Your task to perform on an android device: toggle pop-ups in chrome Image 0: 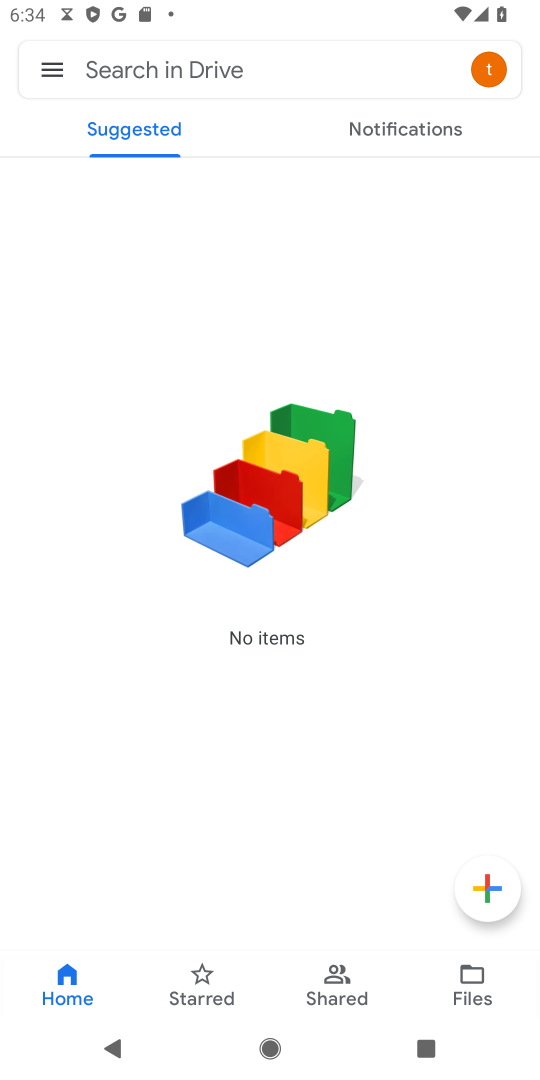
Step 0: press home button
Your task to perform on an android device: toggle pop-ups in chrome Image 1: 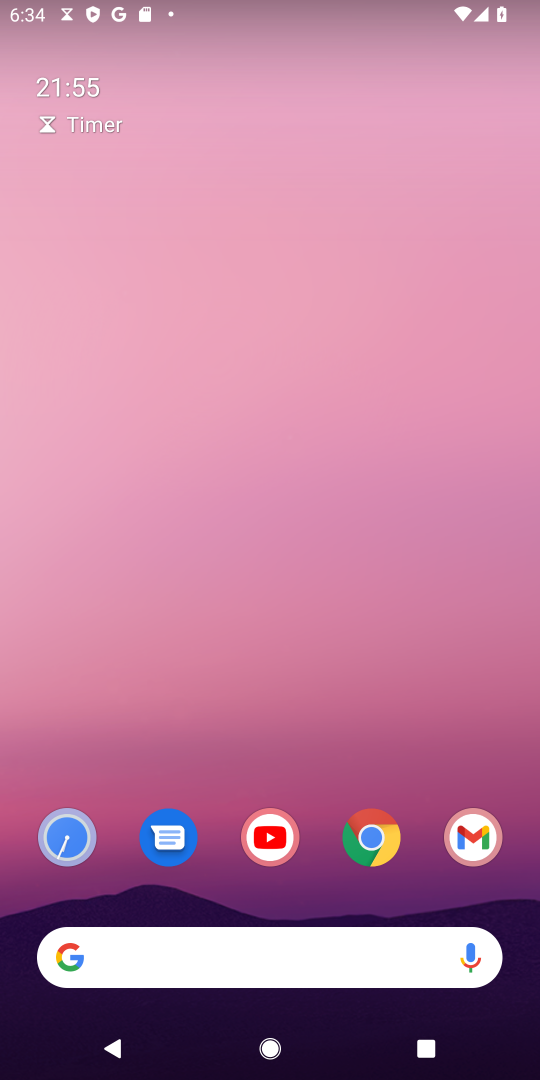
Step 1: click (365, 818)
Your task to perform on an android device: toggle pop-ups in chrome Image 2: 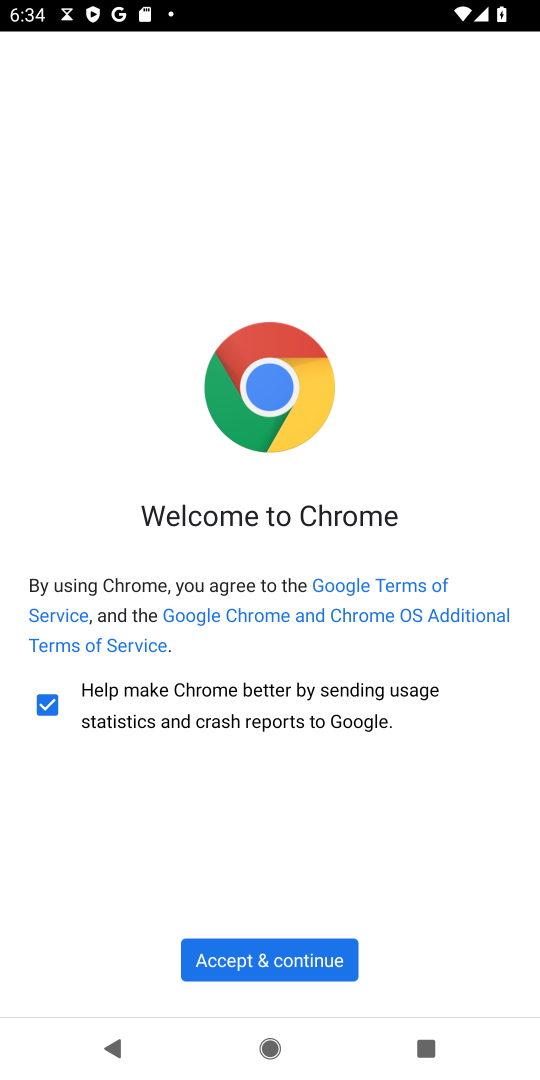
Step 2: click (260, 951)
Your task to perform on an android device: toggle pop-ups in chrome Image 3: 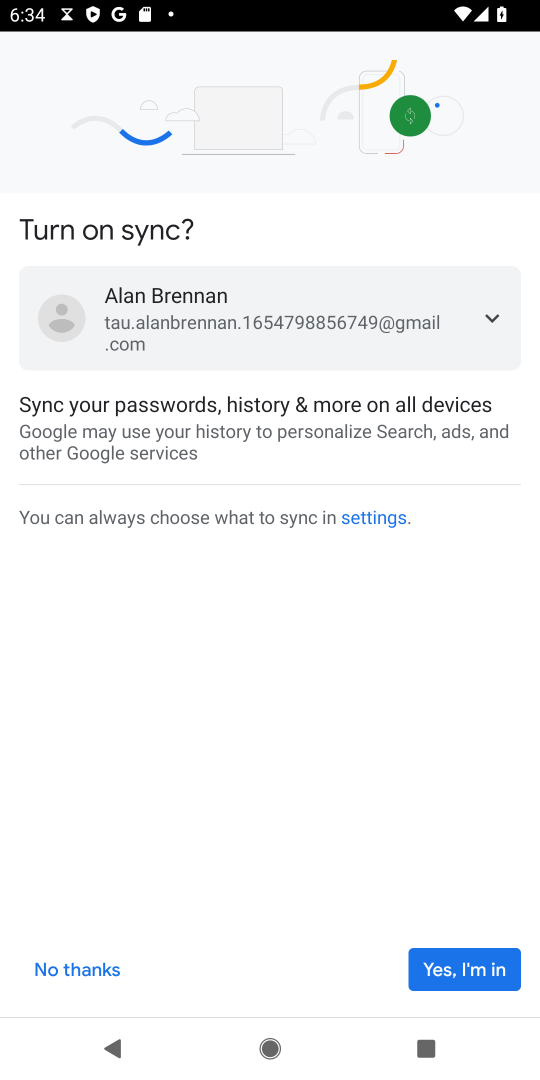
Step 3: click (467, 959)
Your task to perform on an android device: toggle pop-ups in chrome Image 4: 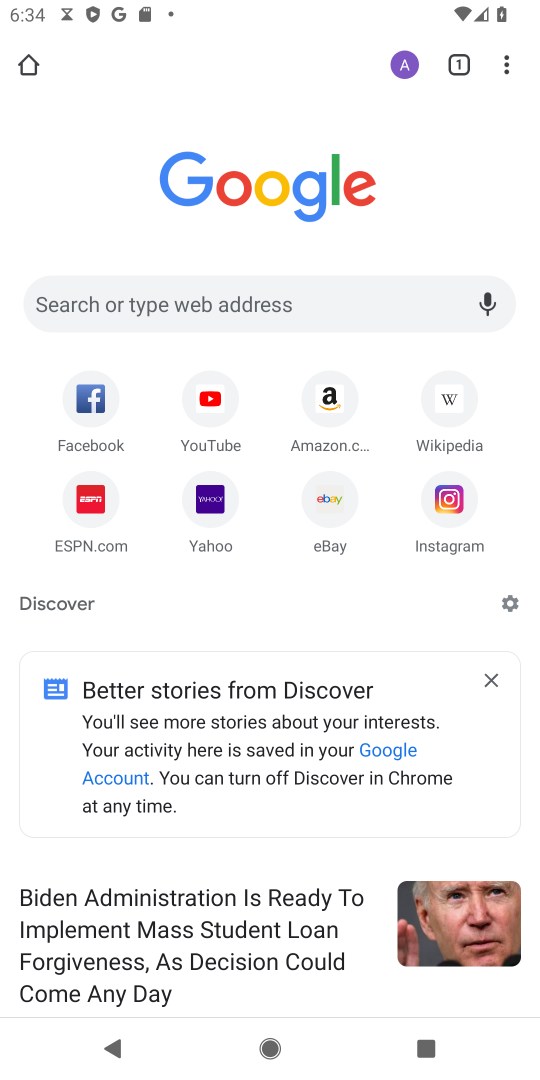
Step 4: click (506, 60)
Your task to perform on an android device: toggle pop-ups in chrome Image 5: 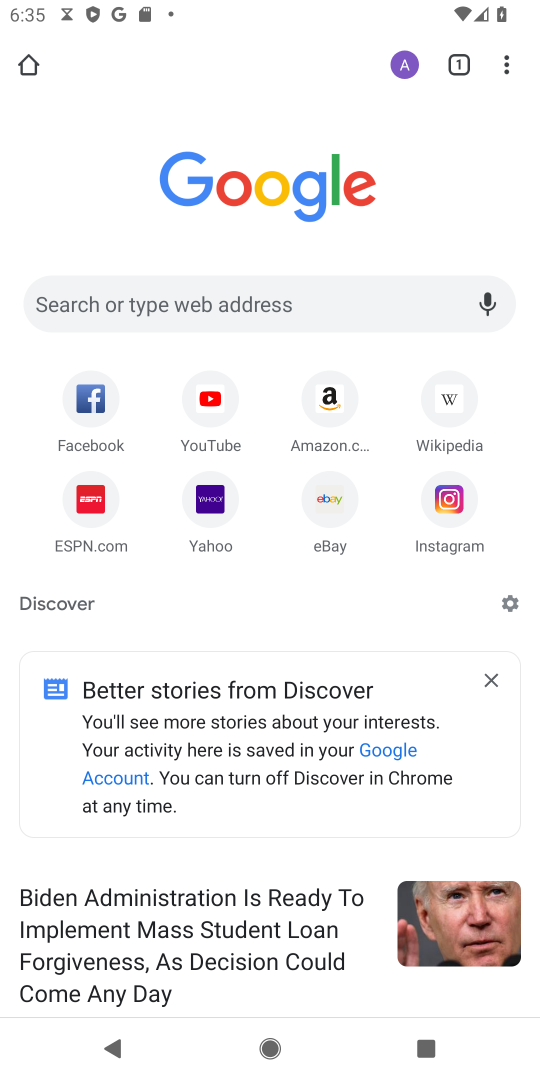
Step 5: click (504, 64)
Your task to perform on an android device: toggle pop-ups in chrome Image 6: 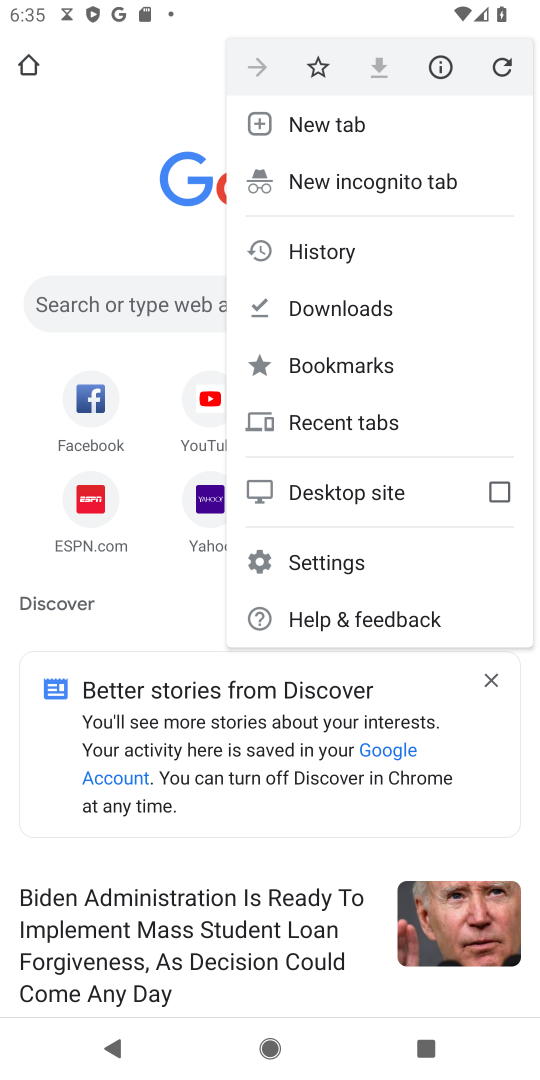
Step 6: click (371, 561)
Your task to perform on an android device: toggle pop-ups in chrome Image 7: 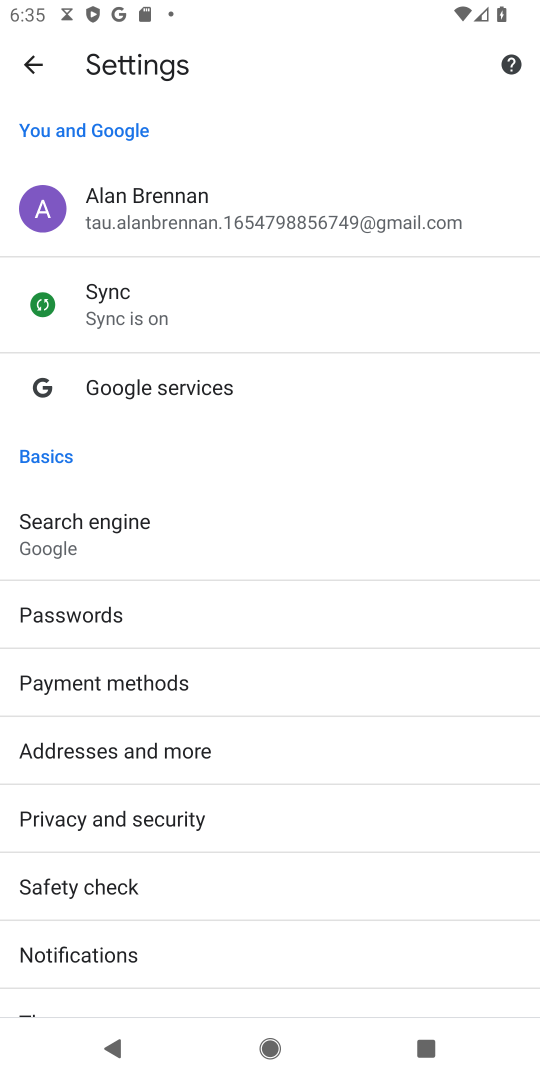
Step 7: drag from (289, 849) to (312, 327)
Your task to perform on an android device: toggle pop-ups in chrome Image 8: 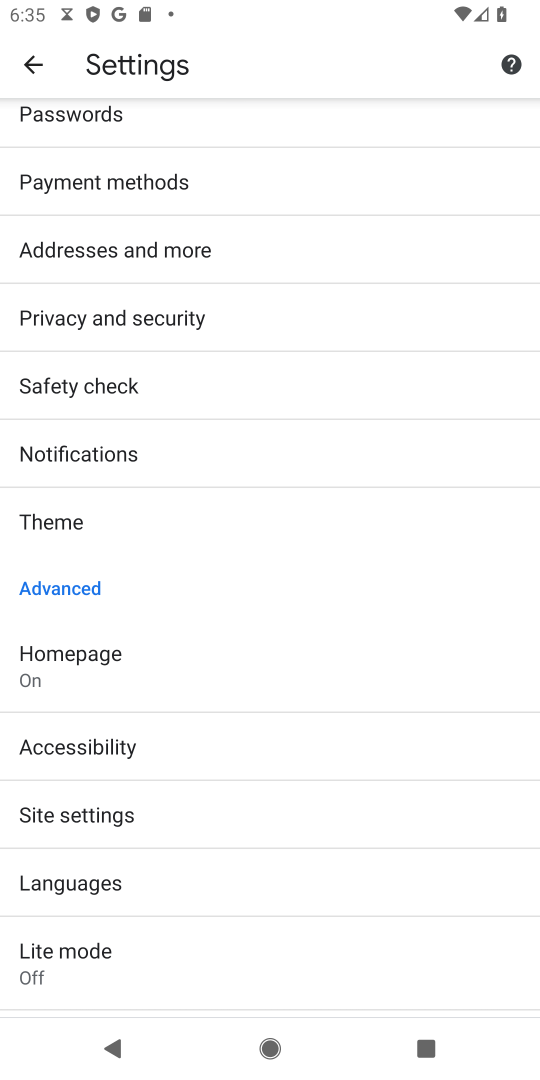
Step 8: click (160, 812)
Your task to perform on an android device: toggle pop-ups in chrome Image 9: 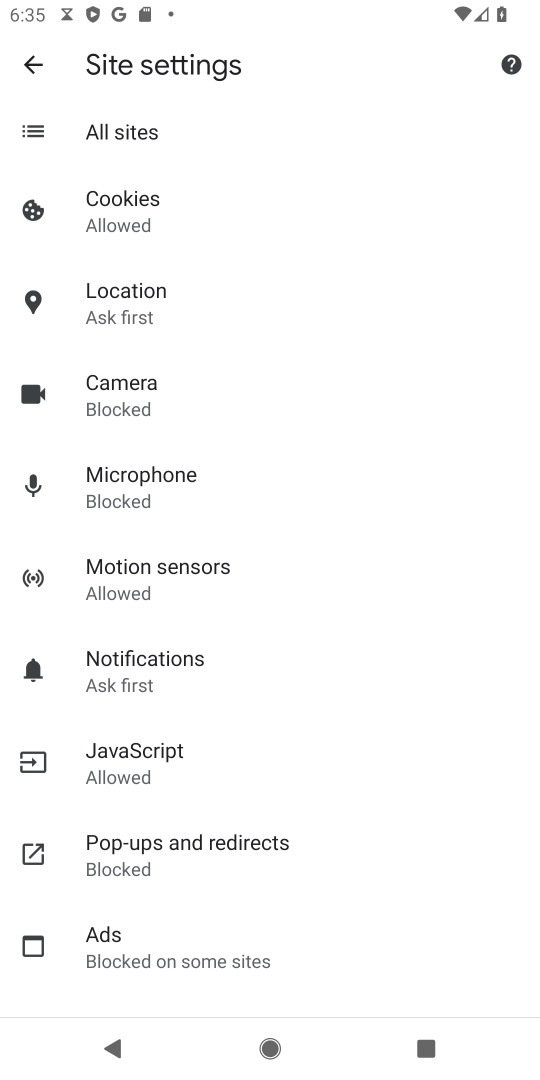
Step 9: click (174, 864)
Your task to perform on an android device: toggle pop-ups in chrome Image 10: 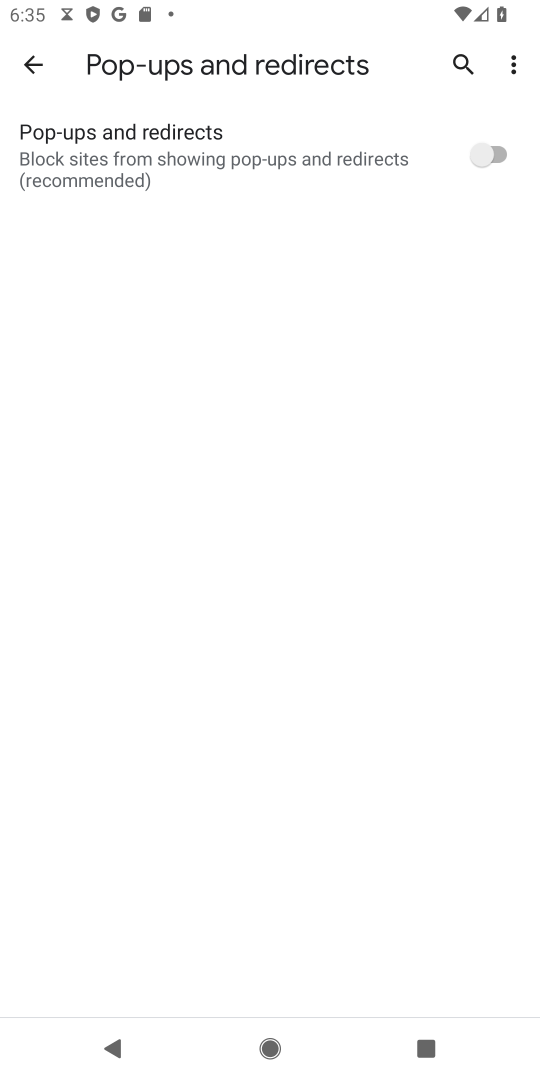
Step 10: task complete